Your task to perform on an android device: open the mobile data screen to see how much data has been used Image 0: 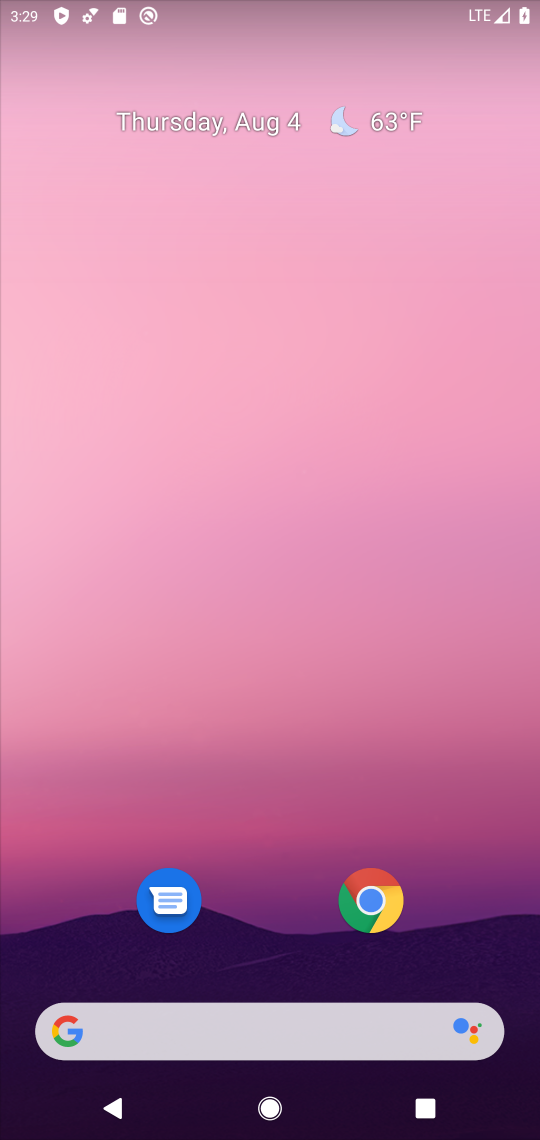
Step 0: drag from (515, 948) to (346, 136)
Your task to perform on an android device: open the mobile data screen to see how much data has been used Image 1: 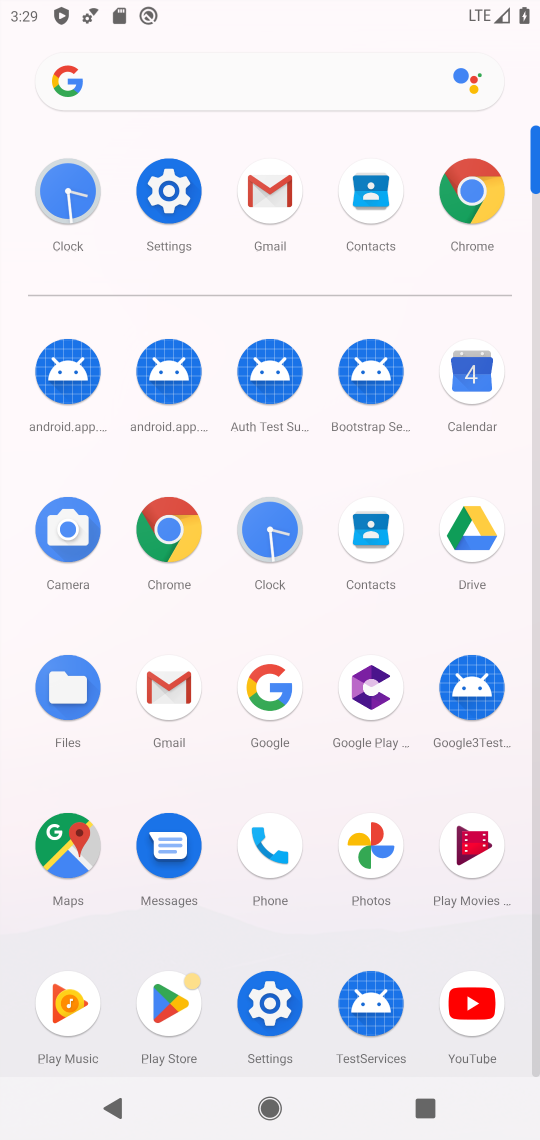
Step 1: click (161, 181)
Your task to perform on an android device: open the mobile data screen to see how much data has been used Image 2: 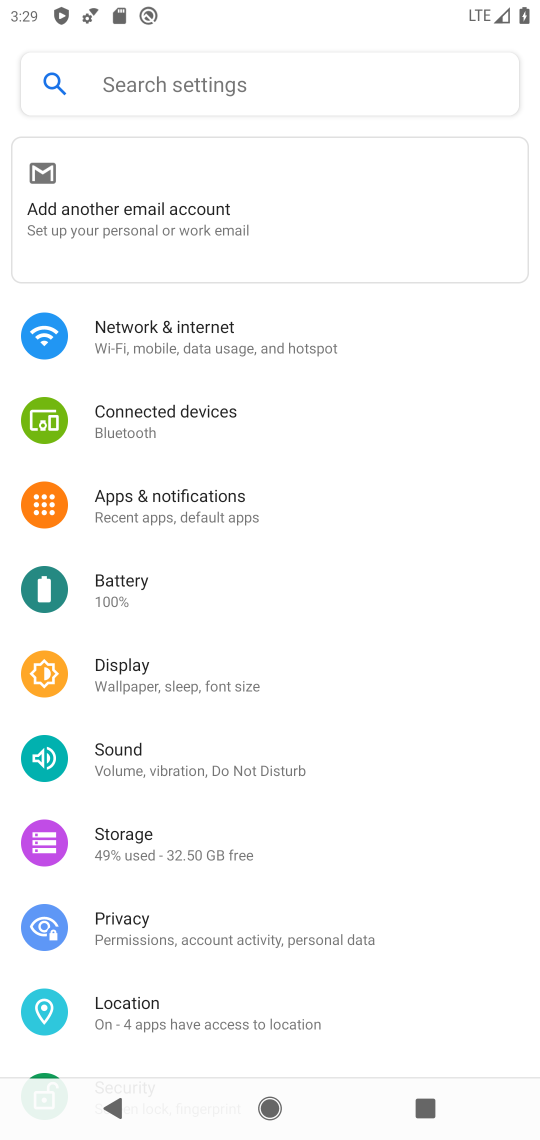
Step 2: click (197, 342)
Your task to perform on an android device: open the mobile data screen to see how much data has been used Image 3: 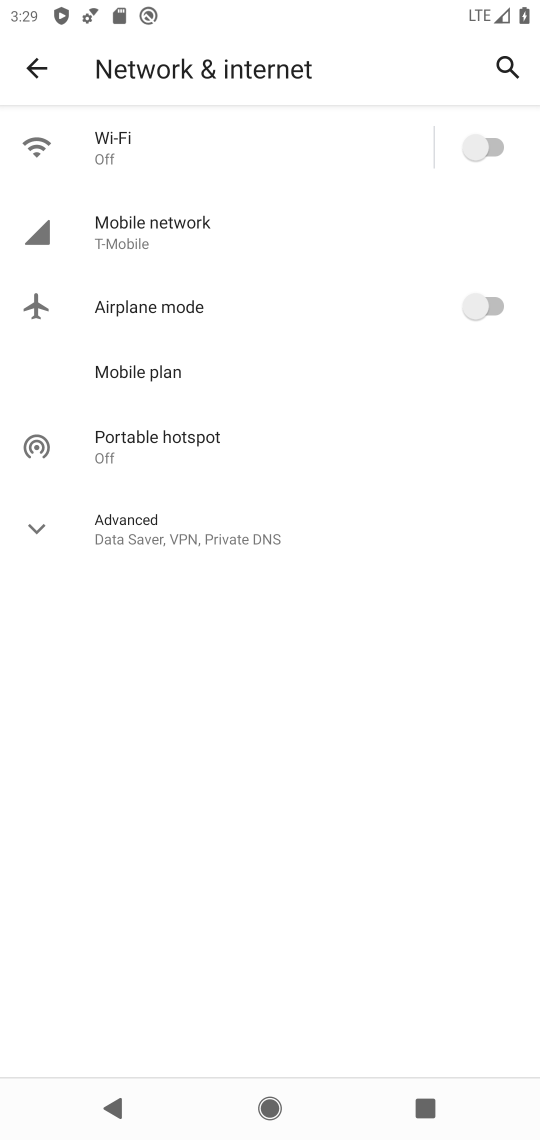
Step 3: click (224, 250)
Your task to perform on an android device: open the mobile data screen to see how much data has been used Image 4: 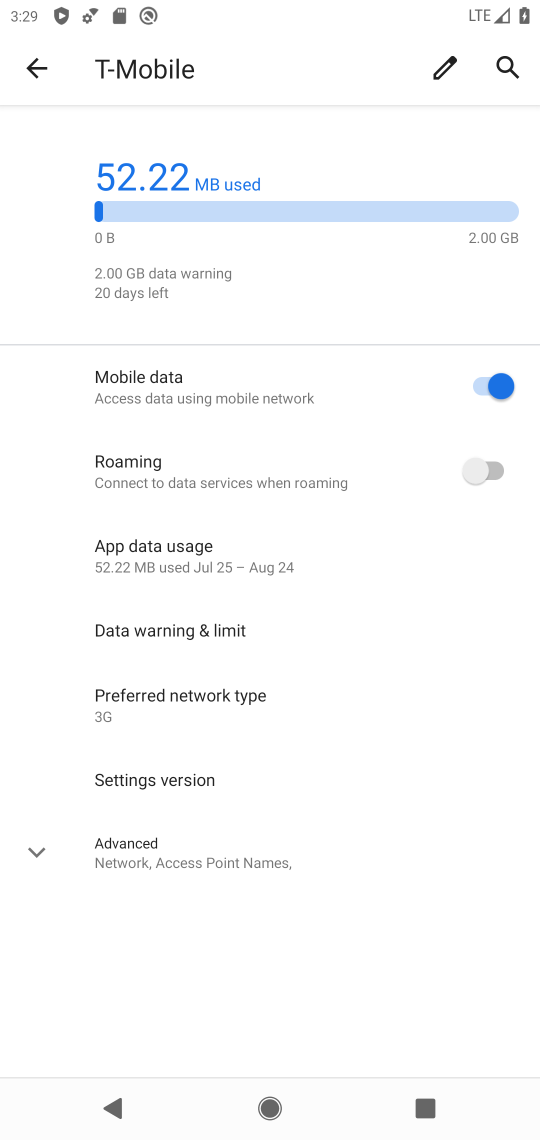
Step 4: task complete